Your task to perform on an android device: turn off wifi Image 0: 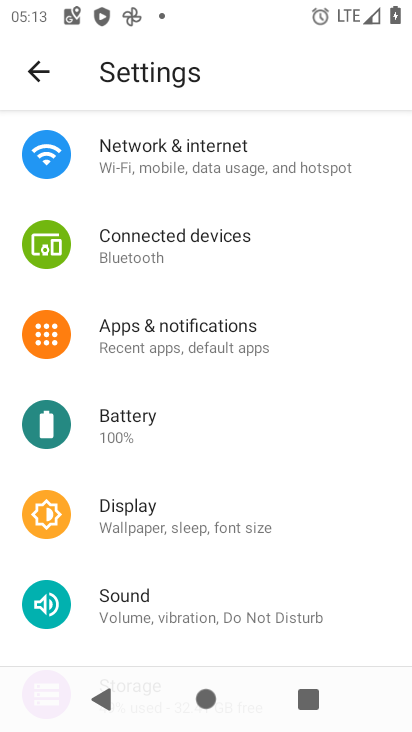
Step 0: click (212, 176)
Your task to perform on an android device: turn off wifi Image 1: 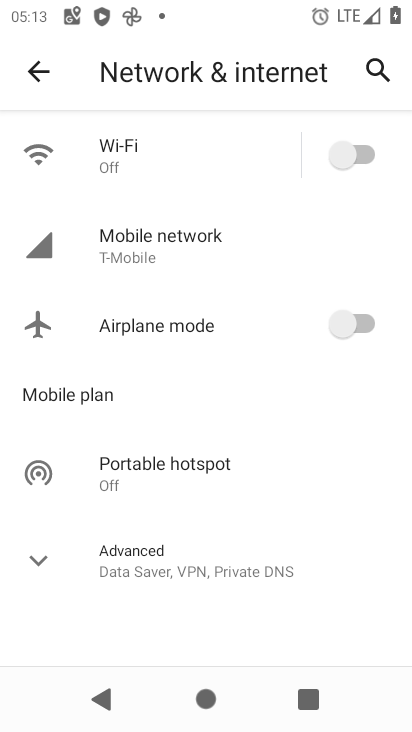
Step 1: click (180, 170)
Your task to perform on an android device: turn off wifi Image 2: 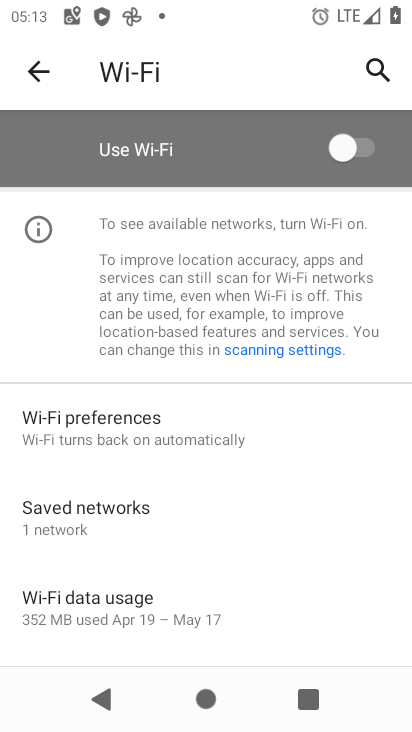
Step 2: task complete